Your task to perform on an android device: Open Google Maps and go to "Timeline" Image 0: 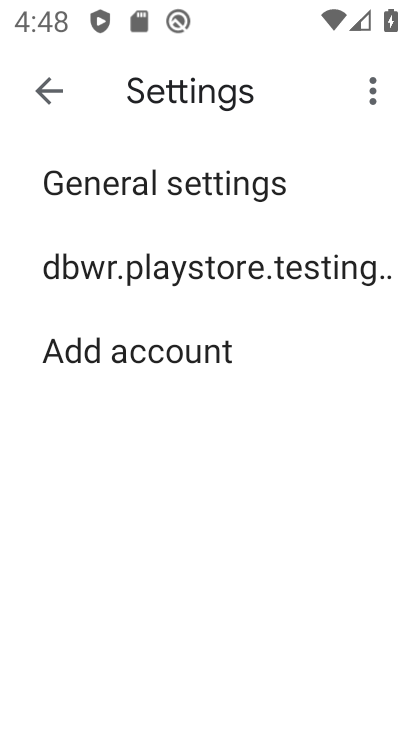
Step 0: press home button
Your task to perform on an android device: Open Google Maps and go to "Timeline" Image 1: 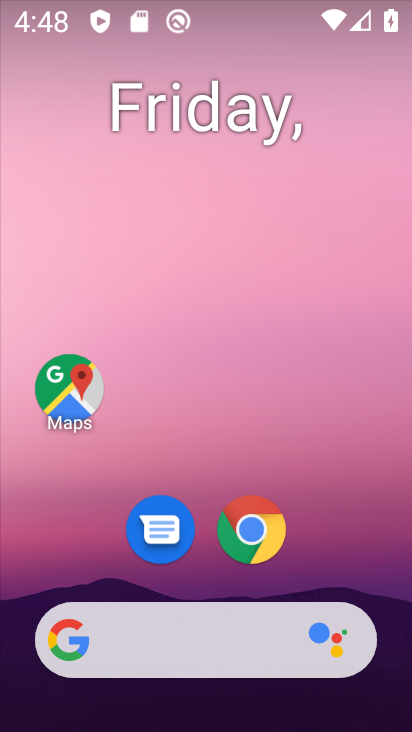
Step 1: click (63, 391)
Your task to perform on an android device: Open Google Maps and go to "Timeline" Image 2: 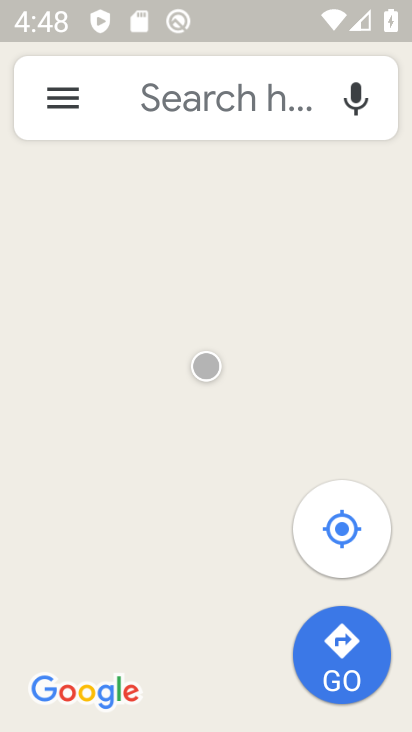
Step 2: click (62, 93)
Your task to perform on an android device: Open Google Maps and go to "Timeline" Image 3: 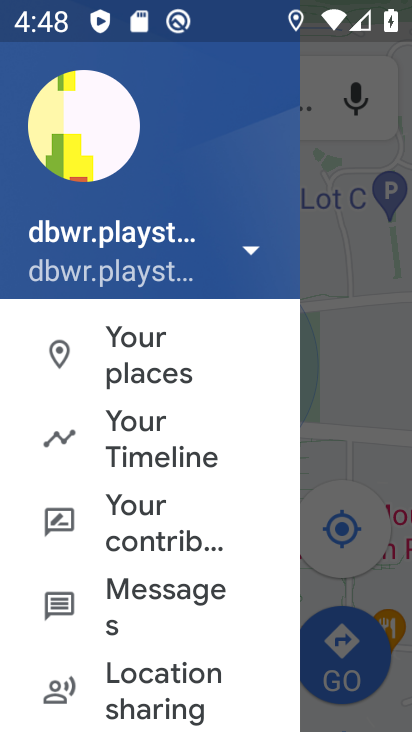
Step 3: click (135, 427)
Your task to perform on an android device: Open Google Maps and go to "Timeline" Image 4: 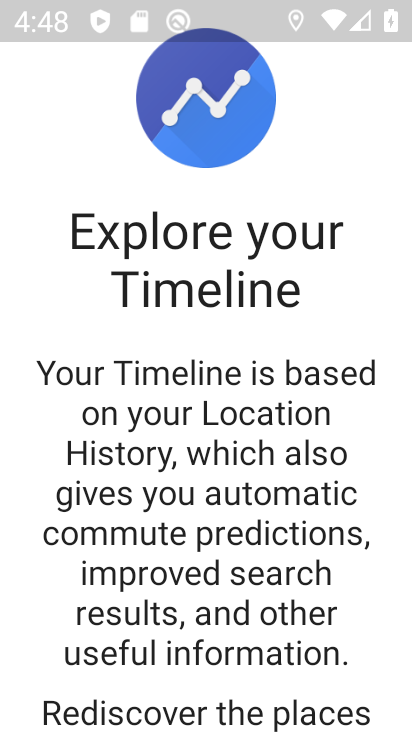
Step 4: drag from (204, 641) to (202, 152)
Your task to perform on an android device: Open Google Maps and go to "Timeline" Image 5: 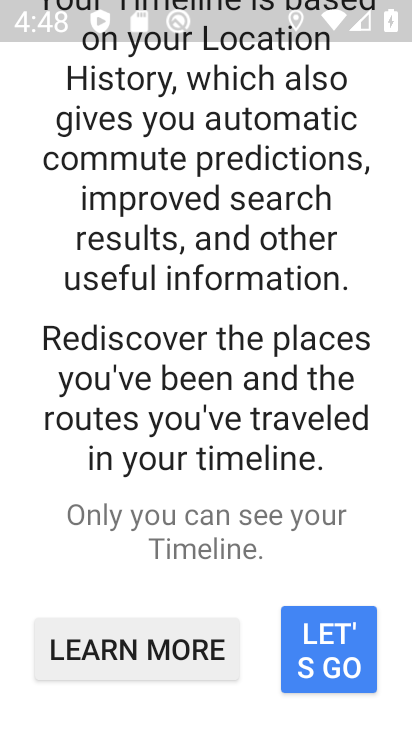
Step 5: click (319, 628)
Your task to perform on an android device: Open Google Maps and go to "Timeline" Image 6: 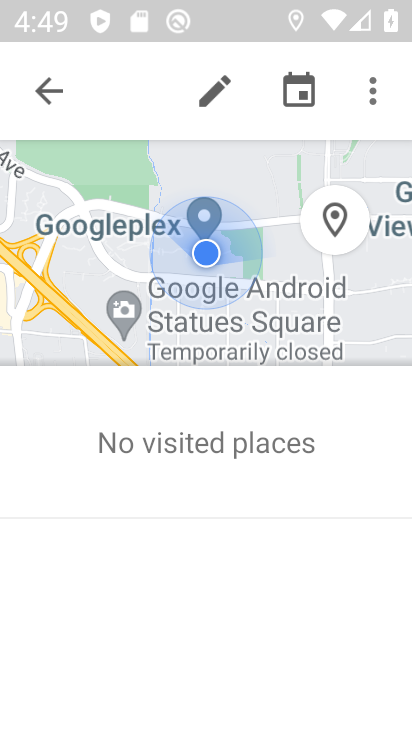
Step 6: task complete